Your task to perform on an android device: check out phone information Image 0: 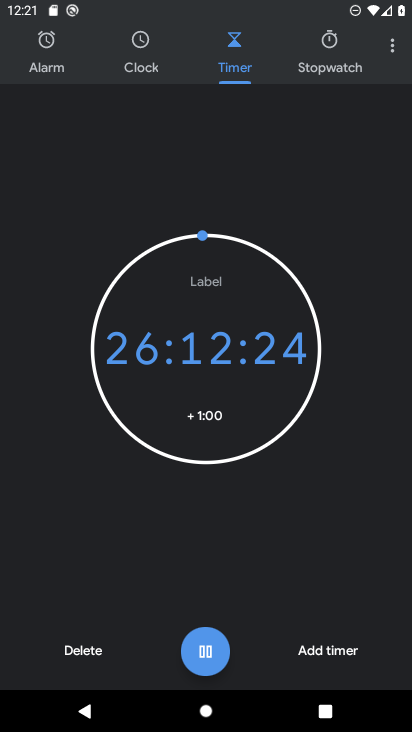
Step 0: press home button
Your task to perform on an android device: check out phone information Image 1: 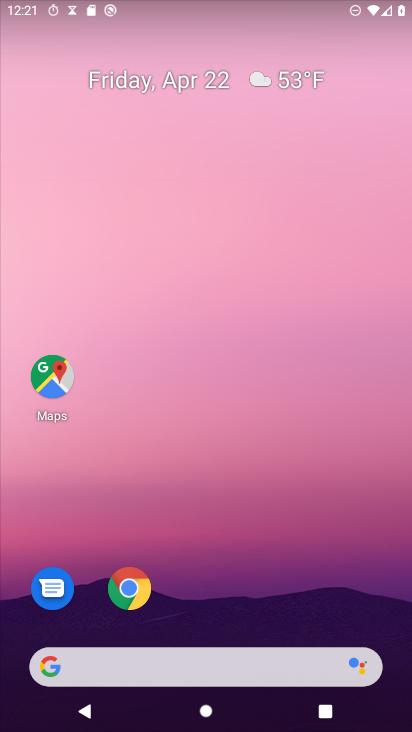
Step 1: drag from (291, 576) to (300, 84)
Your task to perform on an android device: check out phone information Image 2: 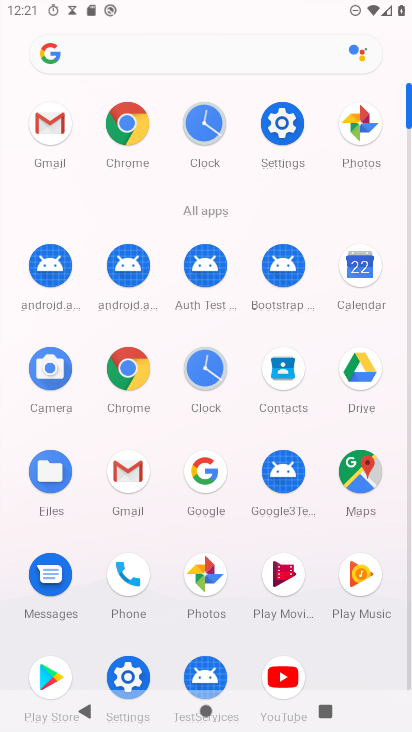
Step 2: click (141, 672)
Your task to perform on an android device: check out phone information Image 3: 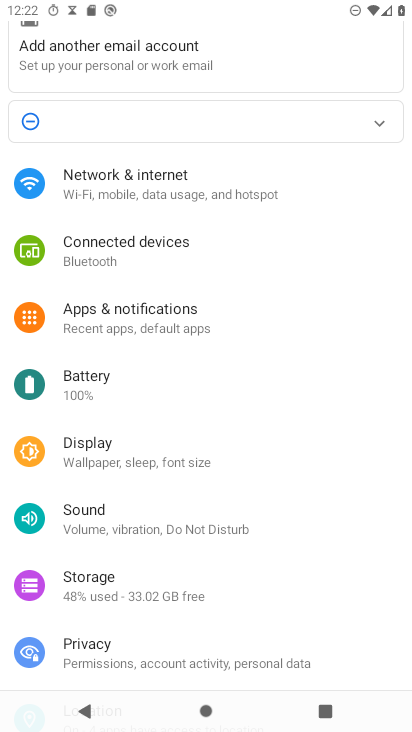
Step 3: drag from (111, 632) to (121, 530)
Your task to perform on an android device: check out phone information Image 4: 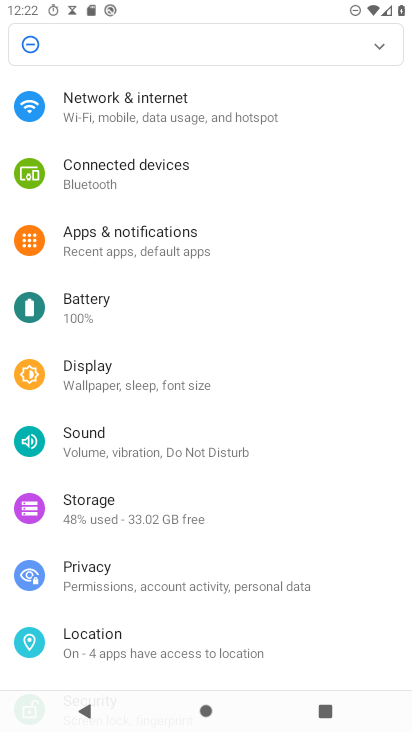
Step 4: drag from (137, 631) to (154, 519)
Your task to perform on an android device: check out phone information Image 5: 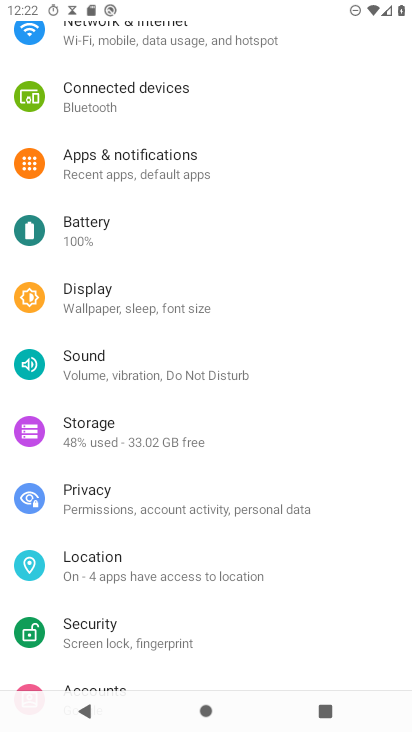
Step 5: drag from (133, 641) to (164, 539)
Your task to perform on an android device: check out phone information Image 6: 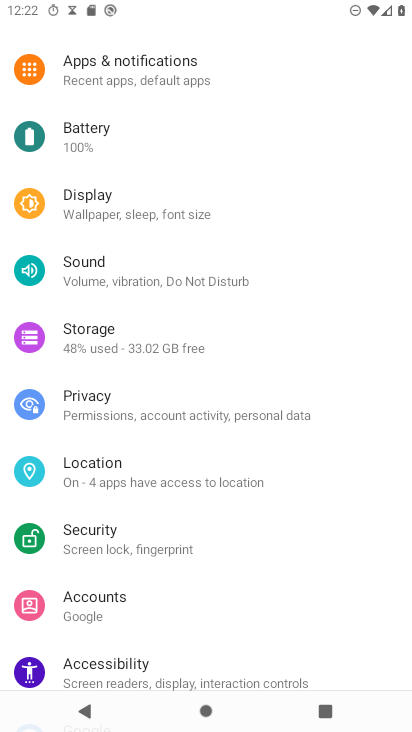
Step 6: drag from (168, 627) to (198, 510)
Your task to perform on an android device: check out phone information Image 7: 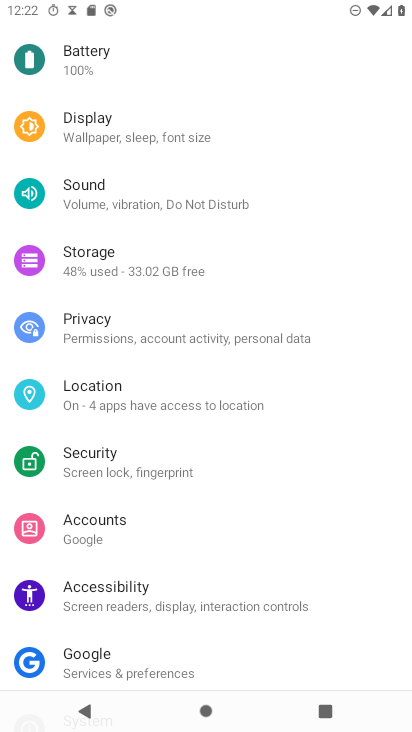
Step 7: drag from (133, 667) to (227, 426)
Your task to perform on an android device: check out phone information Image 8: 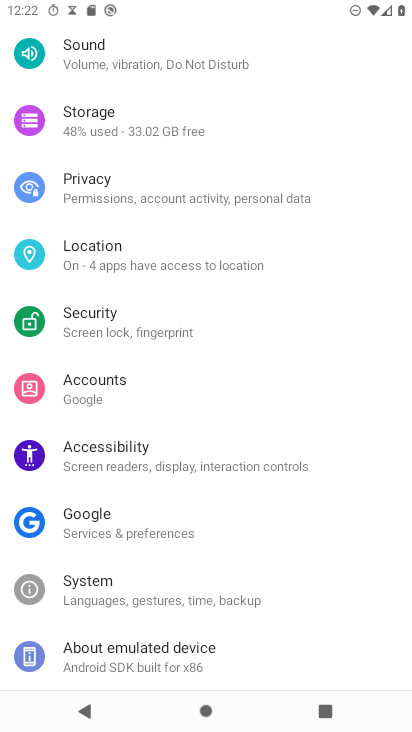
Step 8: click (166, 656)
Your task to perform on an android device: check out phone information Image 9: 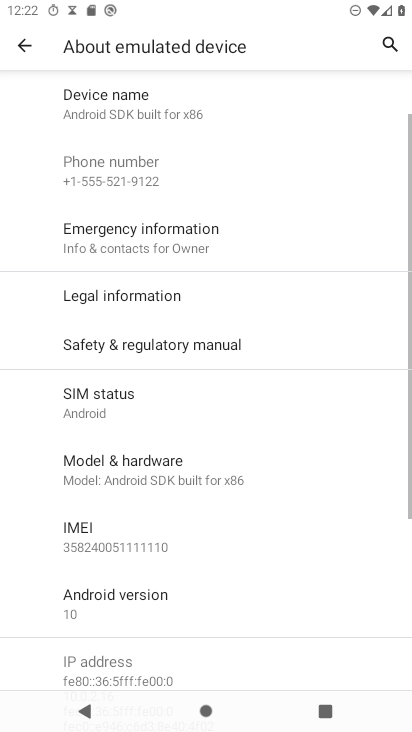
Step 9: task complete